Your task to perform on an android device: turn off location Image 0: 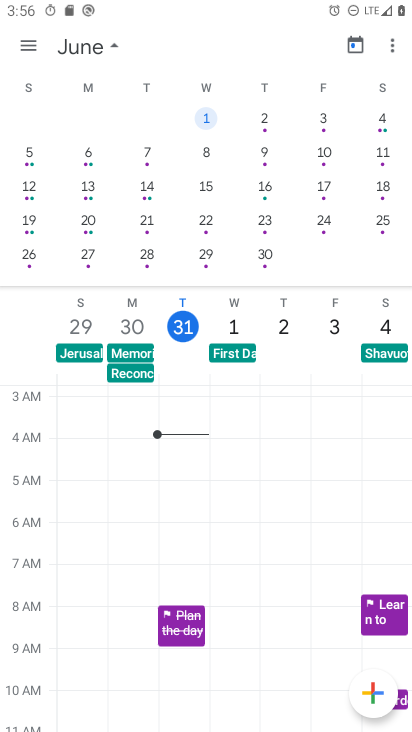
Step 0: press home button
Your task to perform on an android device: turn off location Image 1: 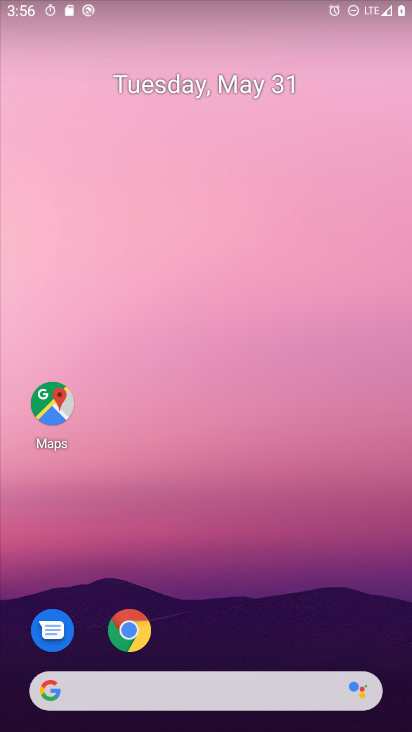
Step 1: drag from (234, 693) to (319, 46)
Your task to perform on an android device: turn off location Image 2: 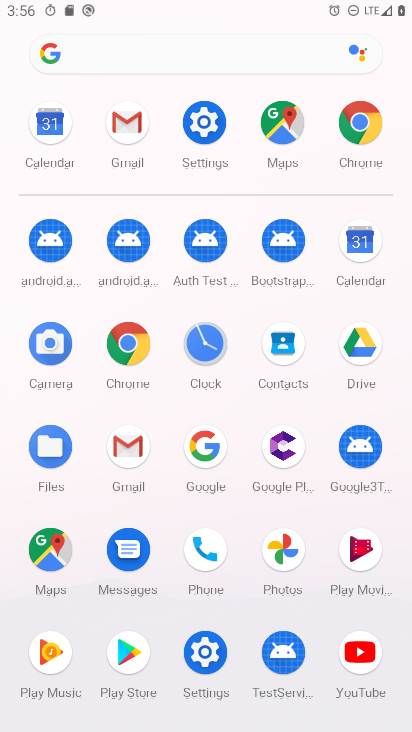
Step 2: click (203, 133)
Your task to perform on an android device: turn off location Image 3: 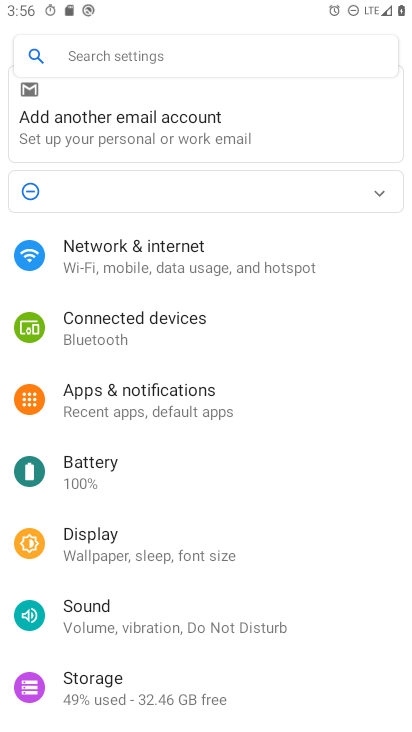
Step 3: drag from (134, 662) to (167, 262)
Your task to perform on an android device: turn off location Image 4: 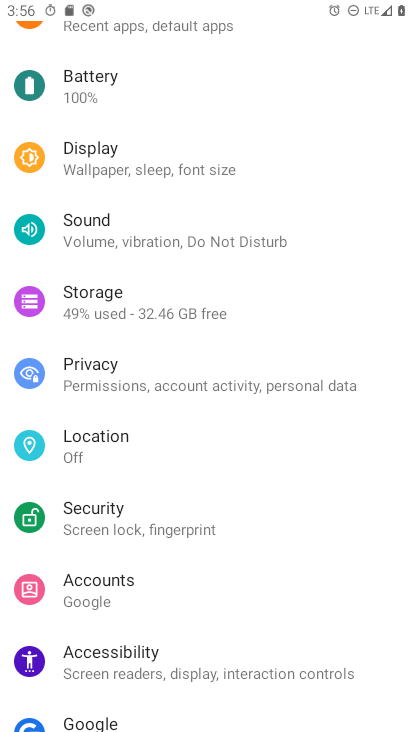
Step 4: click (135, 430)
Your task to perform on an android device: turn off location Image 5: 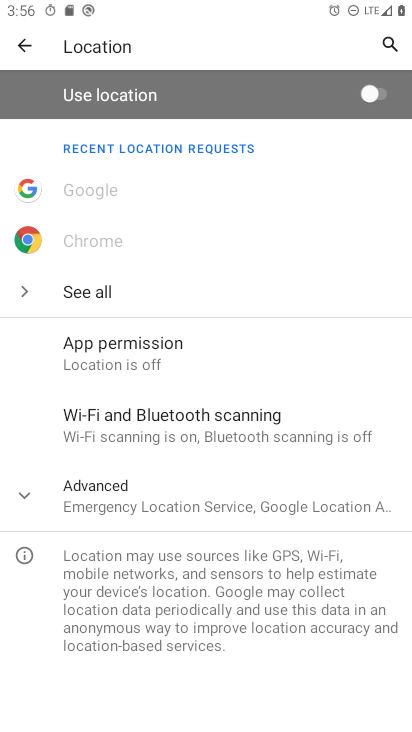
Step 5: task complete